Your task to perform on an android device: toggle notification dots Image 0: 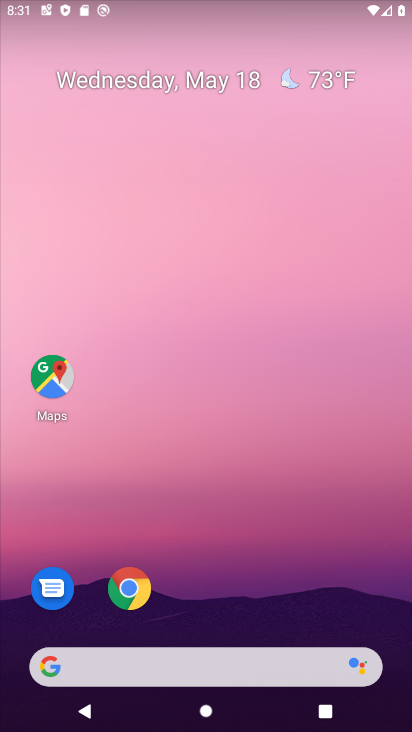
Step 0: drag from (238, 519) to (241, 172)
Your task to perform on an android device: toggle notification dots Image 1: 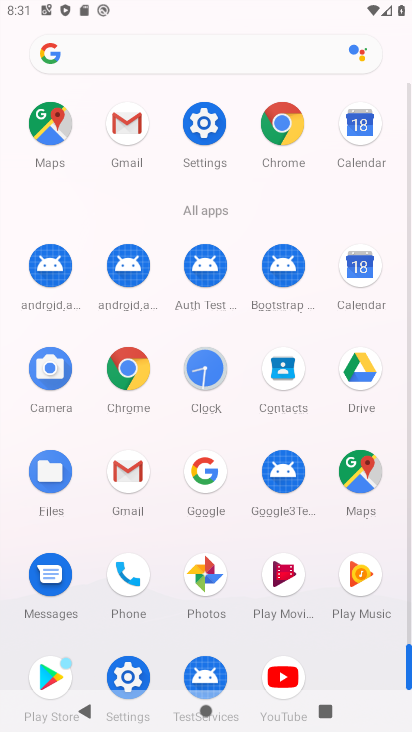
Step 1: click (124, 674)
Your task to perform on an android device: toggle notification dots Image 2: 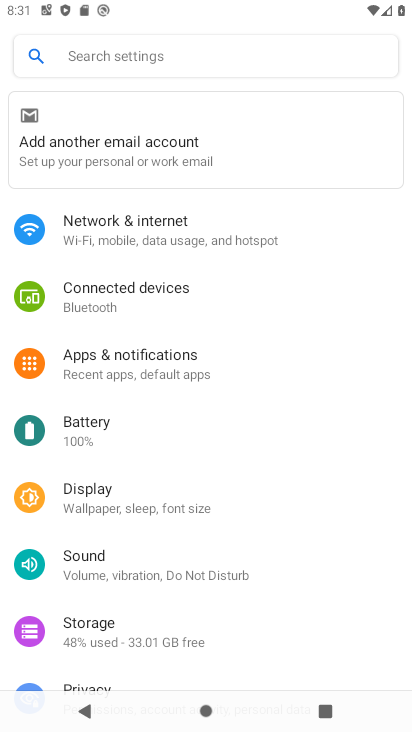
Step 2: click (207, 354)
Your task to perform on an android device: toggle notification dots Image 3: 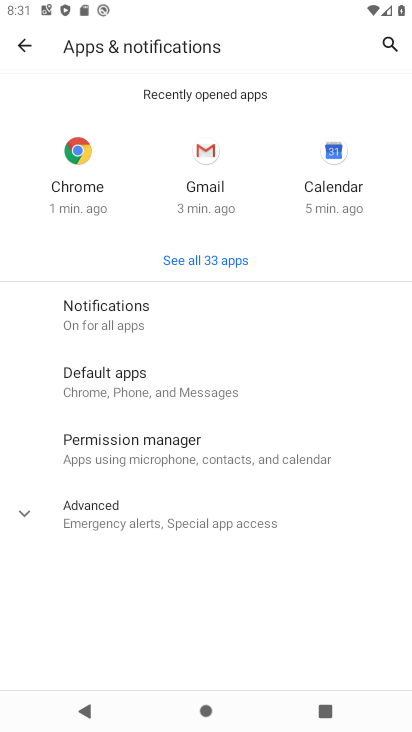
Step 3: click (177, 310)
Your task to perform on an android device: toggle notification dots Image 4: 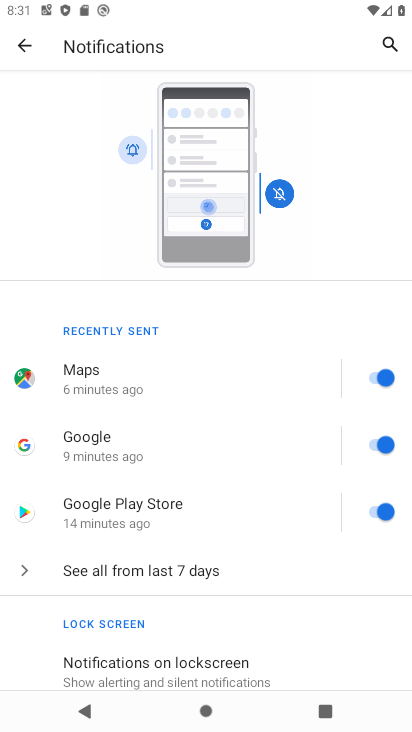
Step 4: drag from (289, 638) to (283, 352)
Your task to perform on an android device: toggle notification dots Image 5: 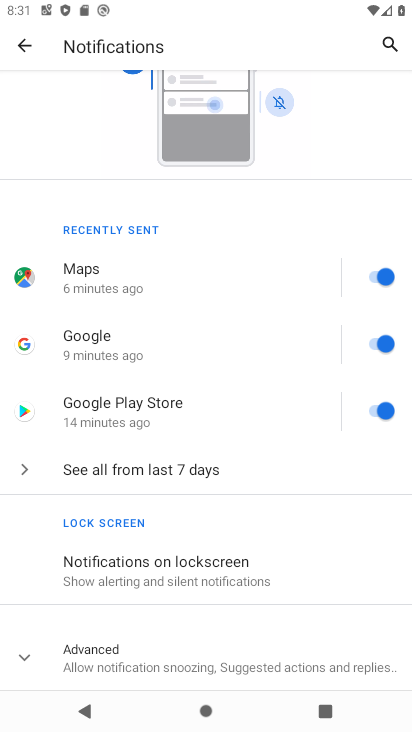
Step 5: click (240, 635)
Your task to perform on an android device: toggle notification dots Image 6: 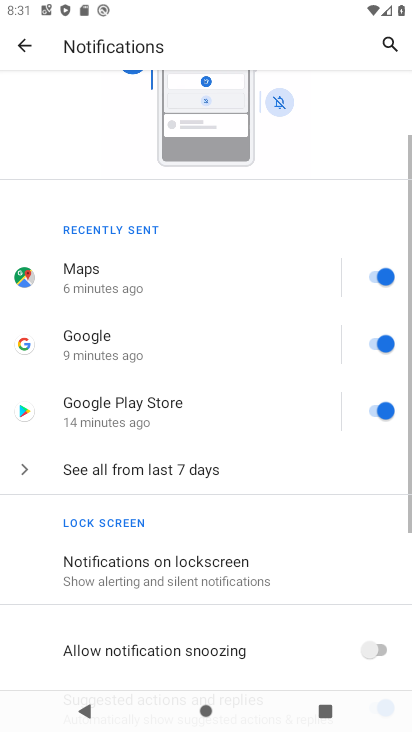
Step 6: drag from (262, 669) to (262, 417)
Your task to perform on an android device: toggle notification dots Image 7: 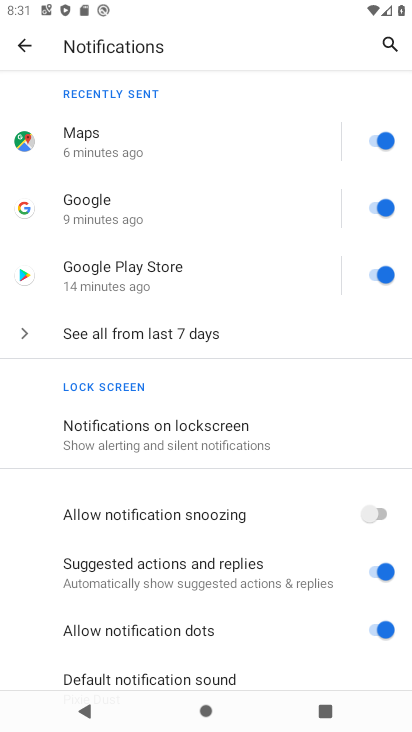
Step 7: click (375, 631)
Your task to perform on an android device: toggle notification dots Image 8: 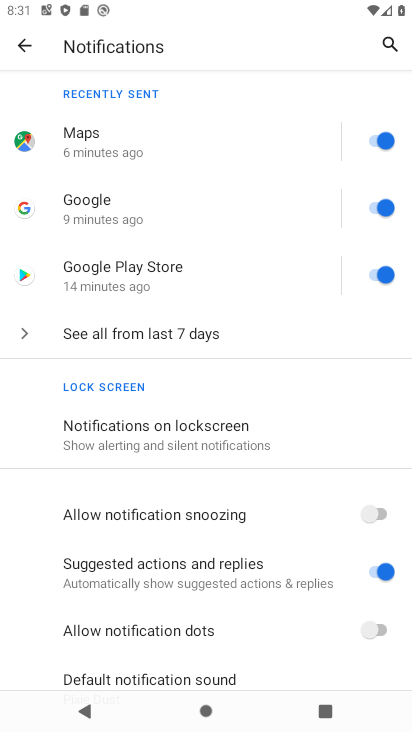
Step 8: task complete